Your task to perform on an android device: When is my next appointment? Image 0: 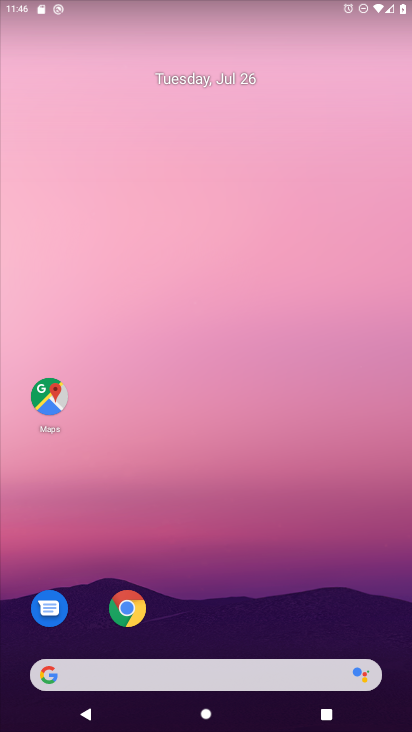
Step 0: drag from (329, 613) to (296, 167)
Your task to perform on an android device: When is my next appointment? Image 1: 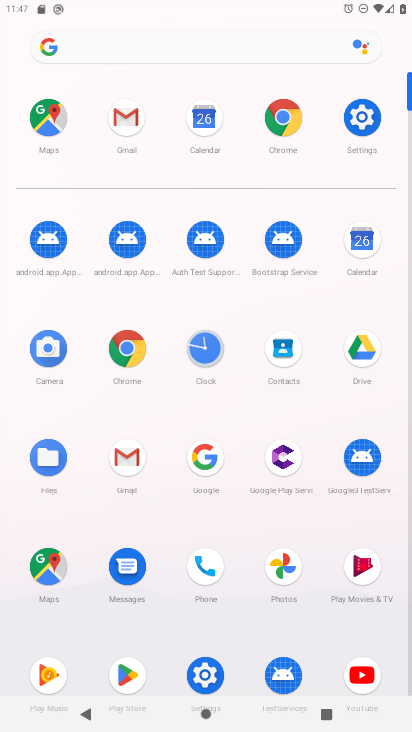
Step 1: click (364, 232)
Your task to perform on an android device: When is my next appointment? Image 2: 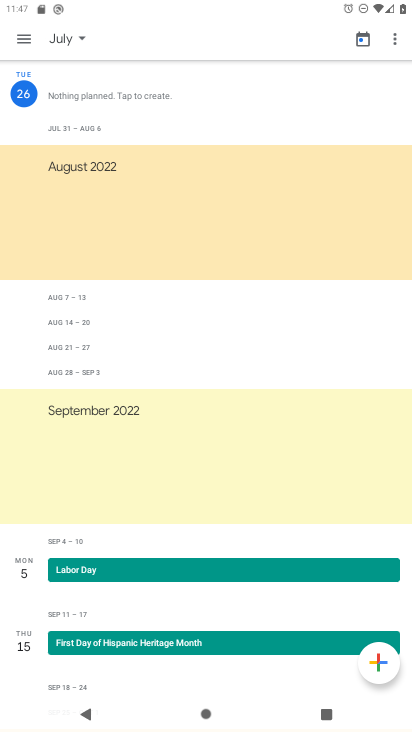
Step 2: click (15, 33)
Your task to perform on an android device: When is my next appointment? Image 3: 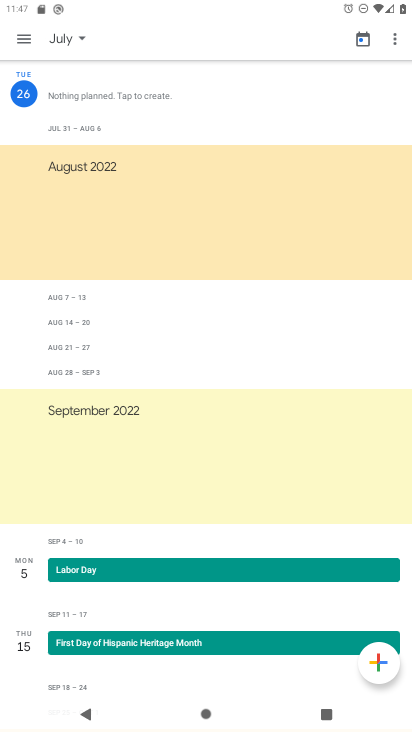
Step 3: click (21, 34)
Your task to perform on an android device: When is my next appointment? Image 4: 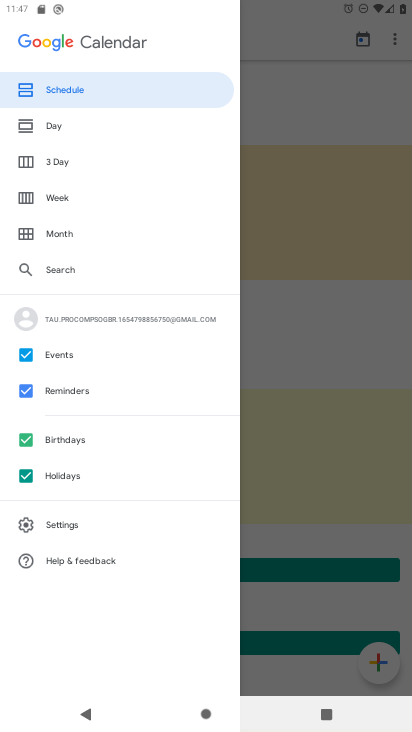
Step 4: click (53, 158)
Your task to perform on an android device: When is my next appointment? Image 5: 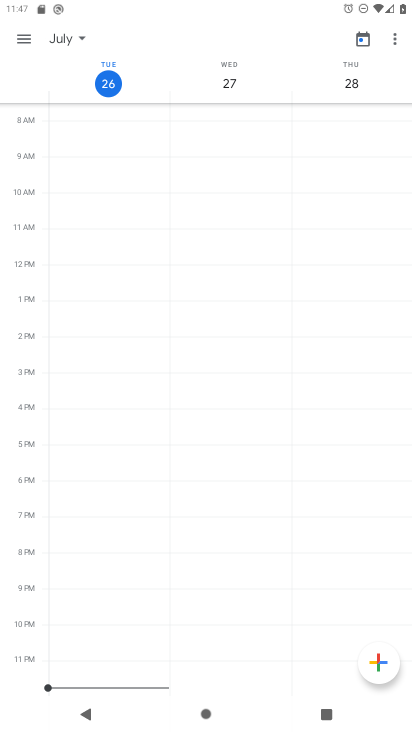
Step 5: task complete